Your task to perform on an android device: set the timer Image 0: 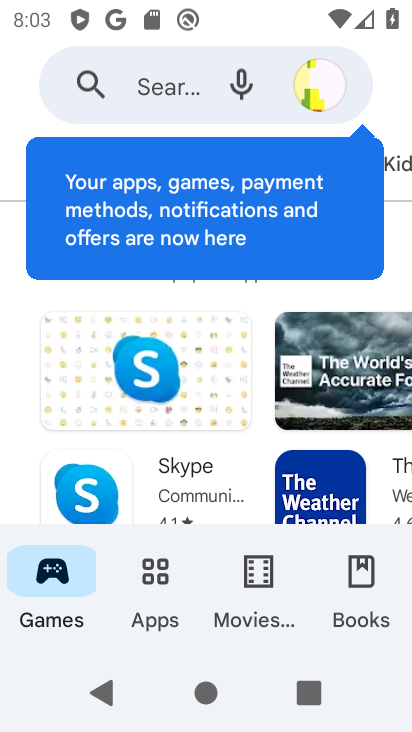
Step 0: press home button
Your task to perform on an android device: set the timer Image 1: 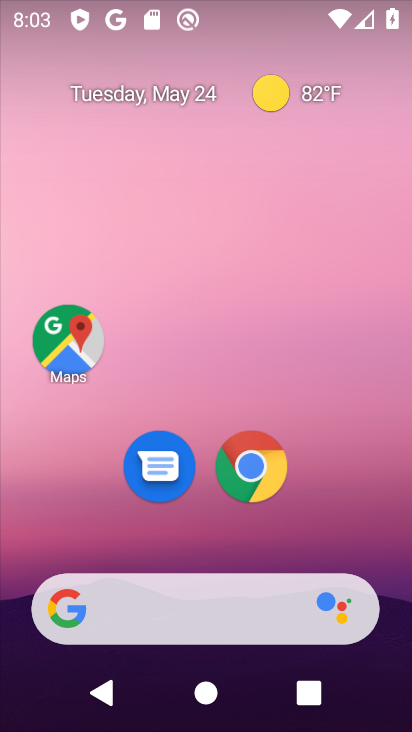
Step 1: drag from (237, 574) to (225, 159)
Your task to perform on an android device: set the timer Image 2: 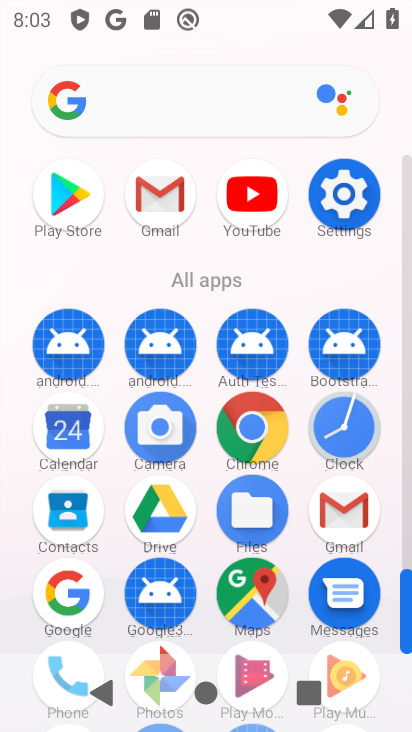
Step 2: click (326, 440)
Your task to perform on an android device: set the timer Image 3: 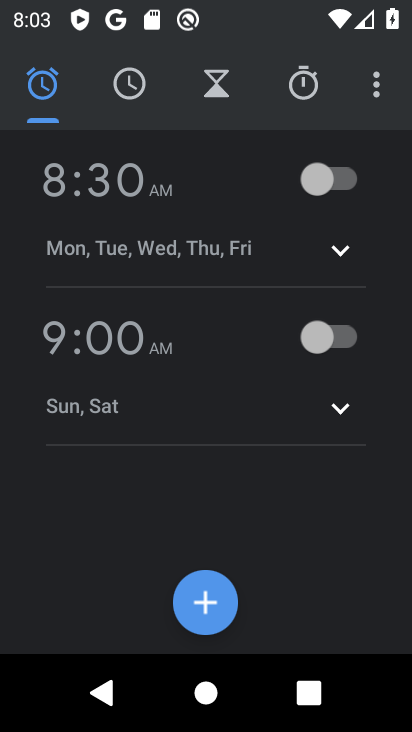
Step 3: click (218, 89)
Your task to perform on an android device: set the timer Image 4: 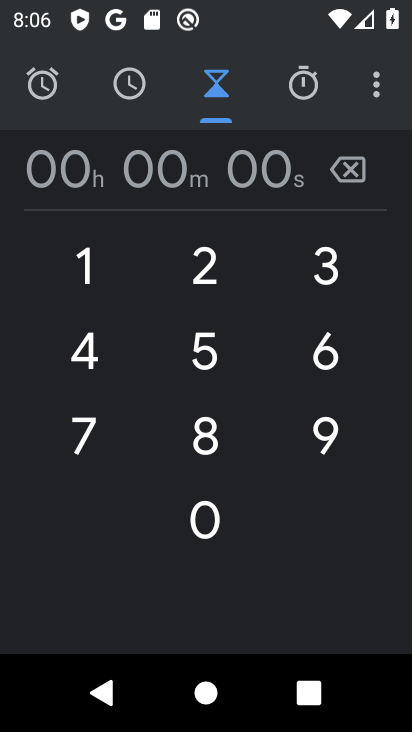
Step 4: click (203, 519)
Your task to perform on an android device: set the timer Image 5: 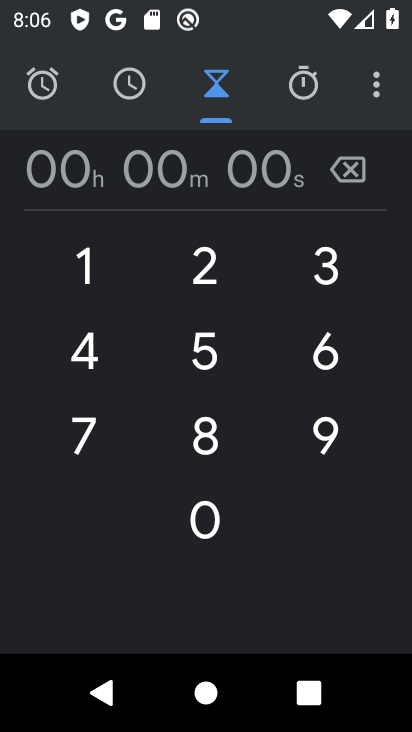
Step 5: click (209, 346)
Your task to perform on an android device: set the timer Image 6: 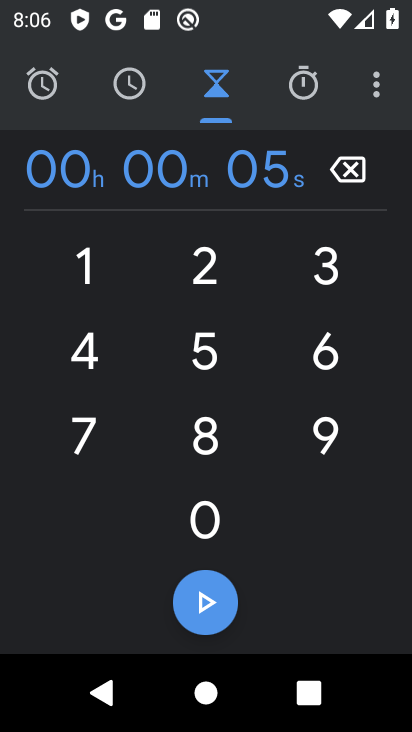
Step 6: click (208, 512)
Your task to perform on an android device: set the timer Image 7: 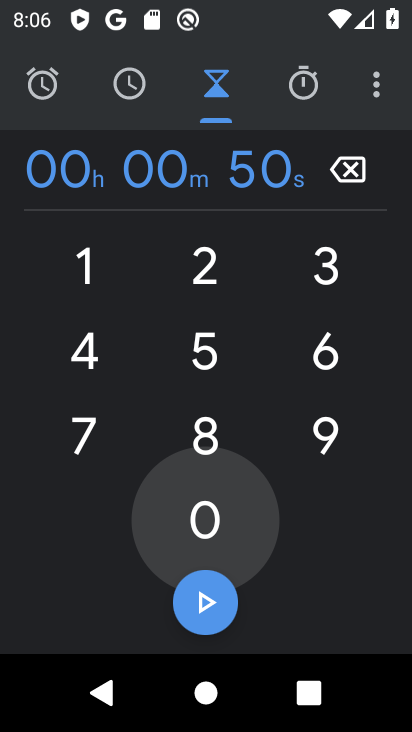
Step 7: click (208, 513)
Your task to perform on an android device: set the timer Image 8: 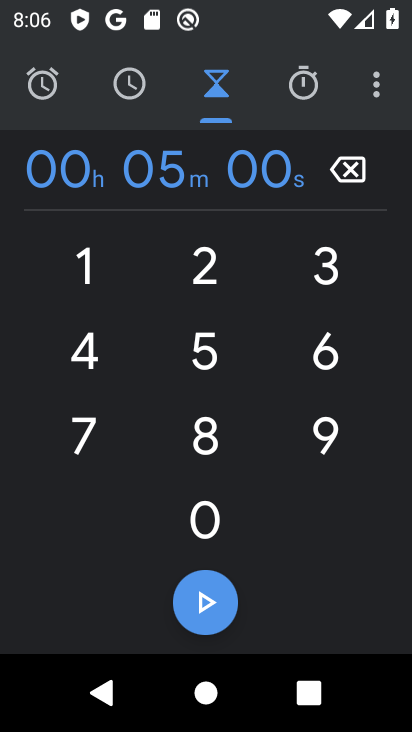
Step 8: click (195, 617)
Your task to perform on an android device: set the timer Image 9: 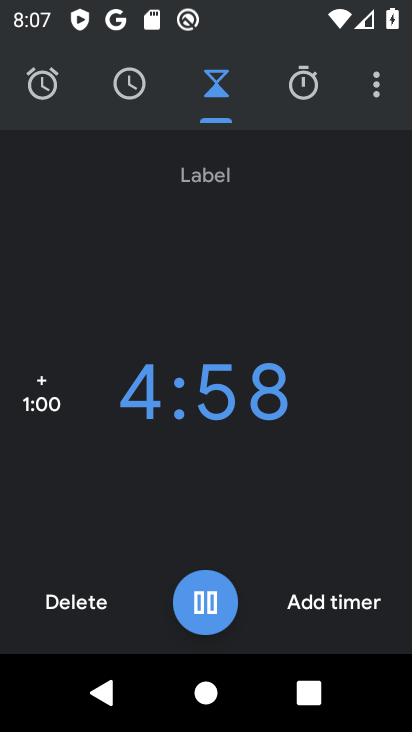
Step 9: task complete